Your task to perform on an android device: Go to Wikipedia Image 0: 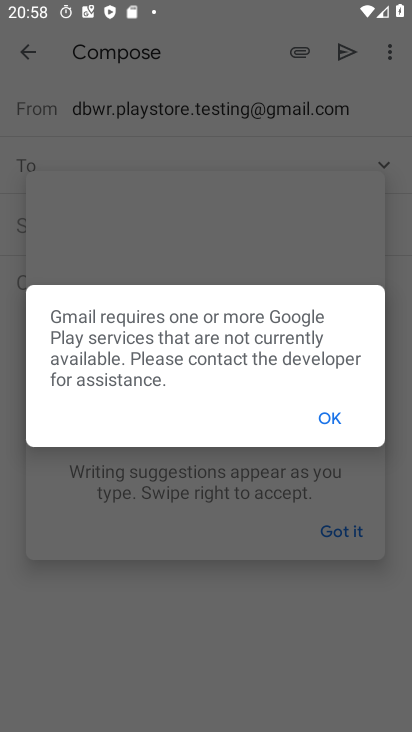
Step 0: press home button
Your task to perform on an android device: Go to Wikipedia Image 1: 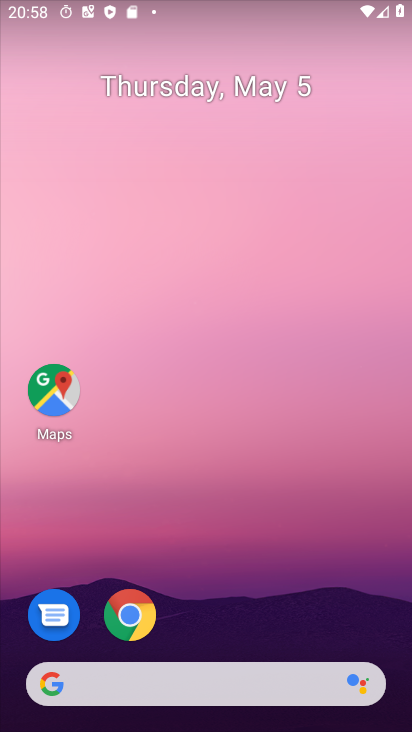
Step 1: click (136, 614)
Your task to perform on an android device: Go to Wikipedia Image 2: 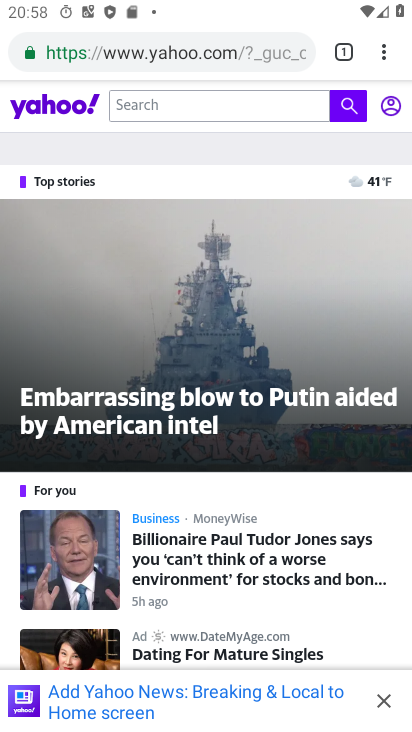
Step 2: click (154, 48)
Your task to perform on an android device: Go to Wikipedia Image 3: 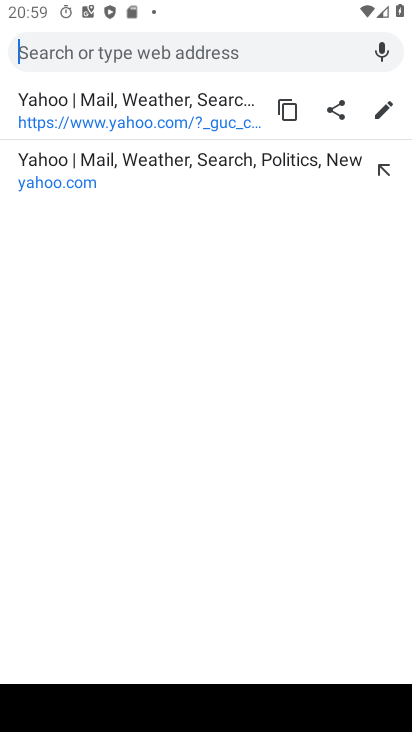
Step 3: type "wikipedia.org"
Your task to perform on an android device: Go to Wikipedia Image 4: 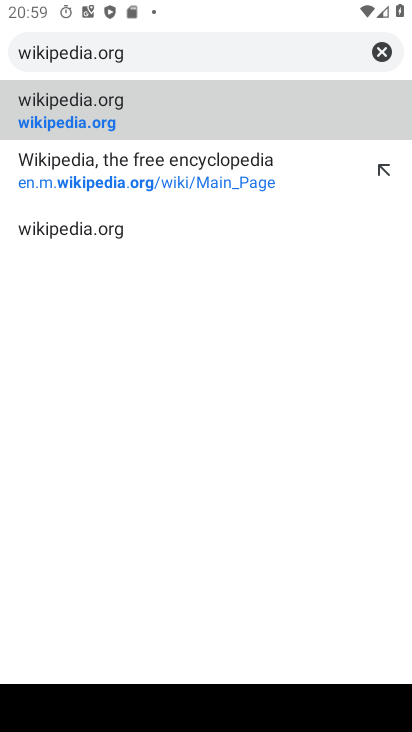
Step 4: click (129, 112)
Your task to perform on an android device: Go to Wikipedia Image 5: 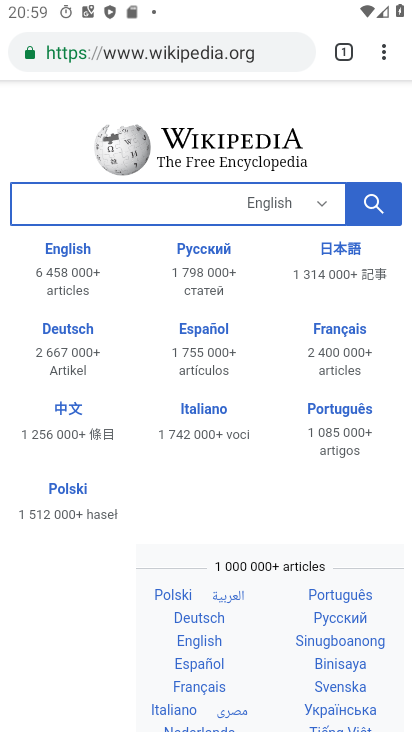
Step 5: task complete